Your task to perform on an android device: add a label to a message in the gmail app Image 0: 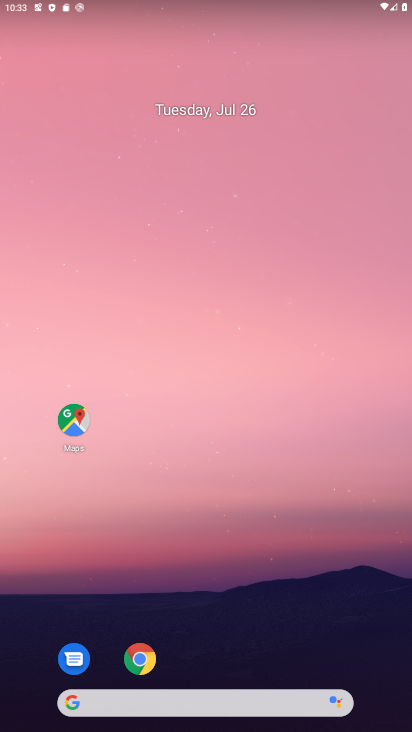
Step 0: drag from (268, 610) to (179, 37)
Your task to perform on an android device: add a label to a message in the gmail app Image 1: 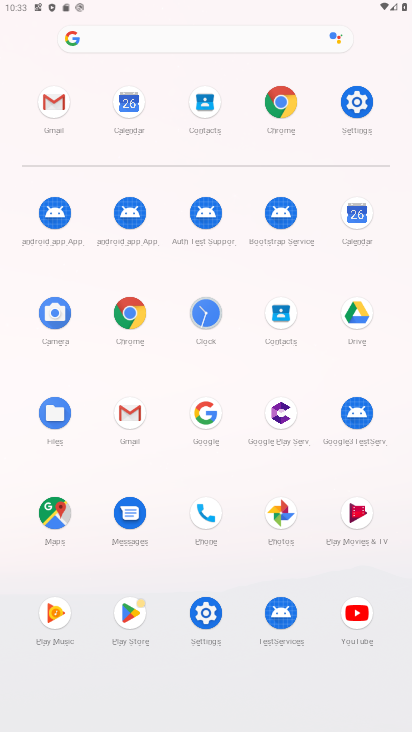
Step 1: click (136, 415)
Your task to perform on an android device: add a label to a message in the gmail app Image 2: 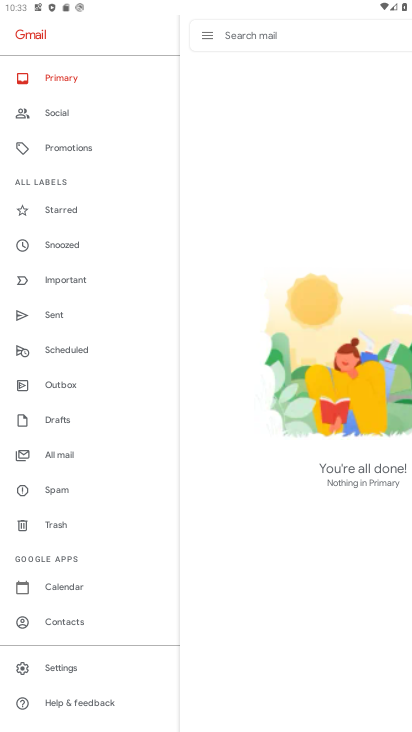
Step 2: task complete